Your task to perform on an android device: open a bookmark in the chrome app Image 0: 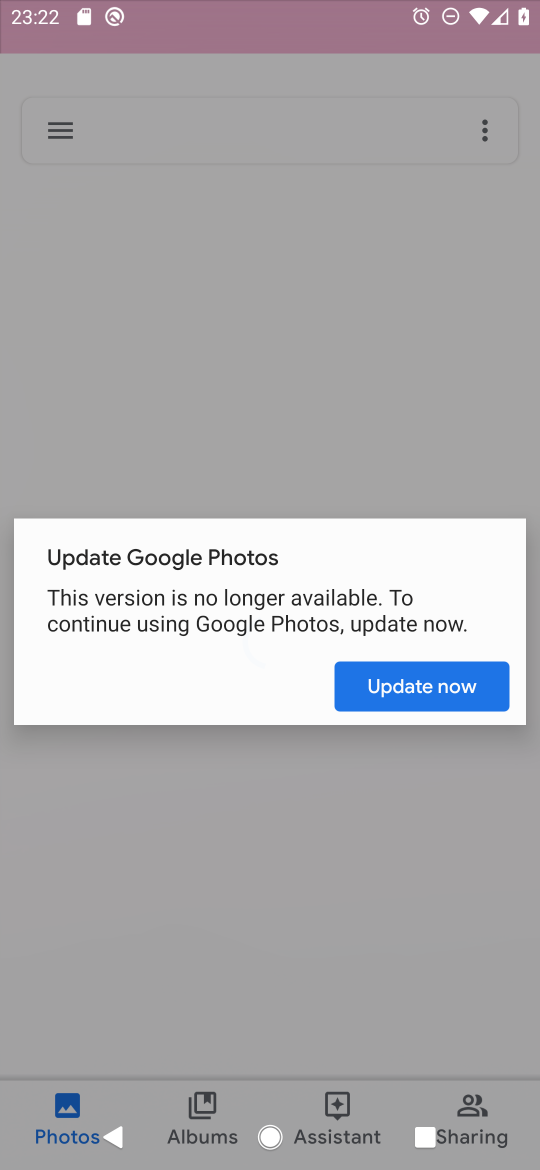
Step 0: press home button
Your task to perform on an android device: open a bookmark in the chrome app Image 1: 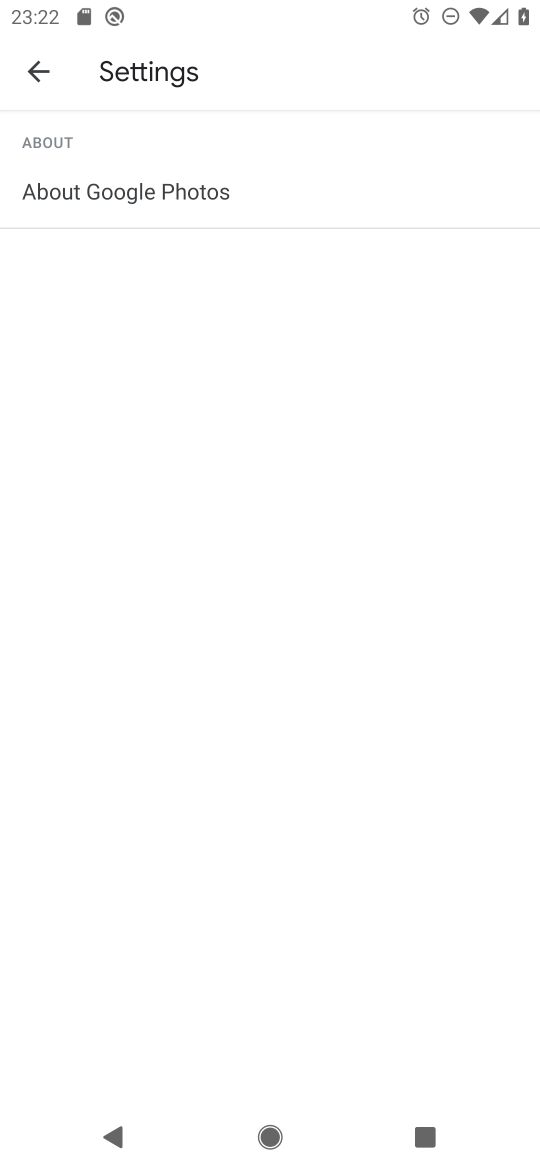
Step 1: press home button
Your task to perform on an android device: open a bookmark in the chrome app Image 2: 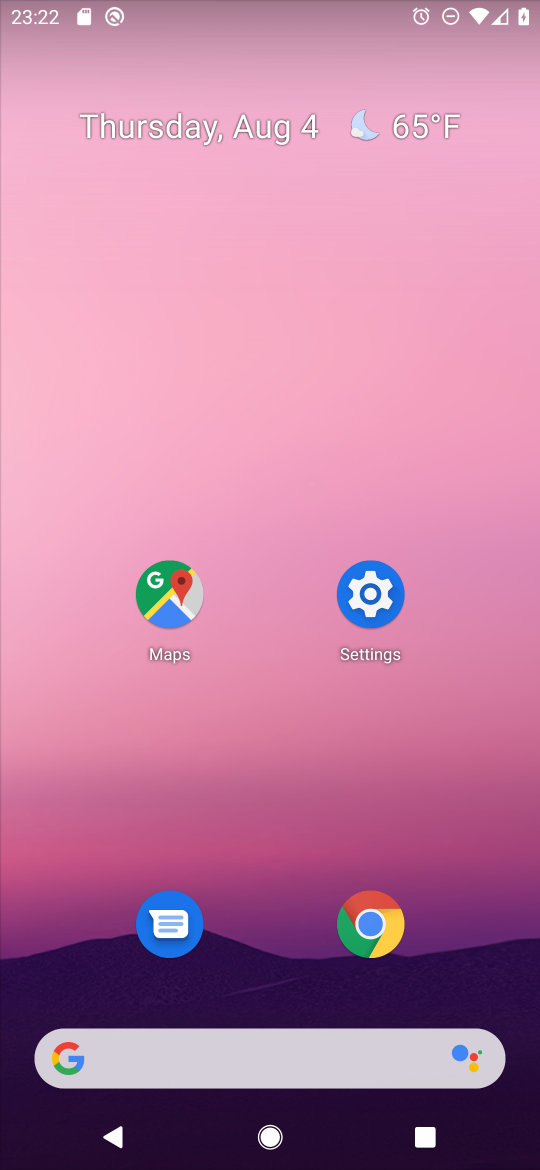
Step 2: click (372, 942)
Your task to perform on an android device: open a bookmark in the chrome app Image 3: 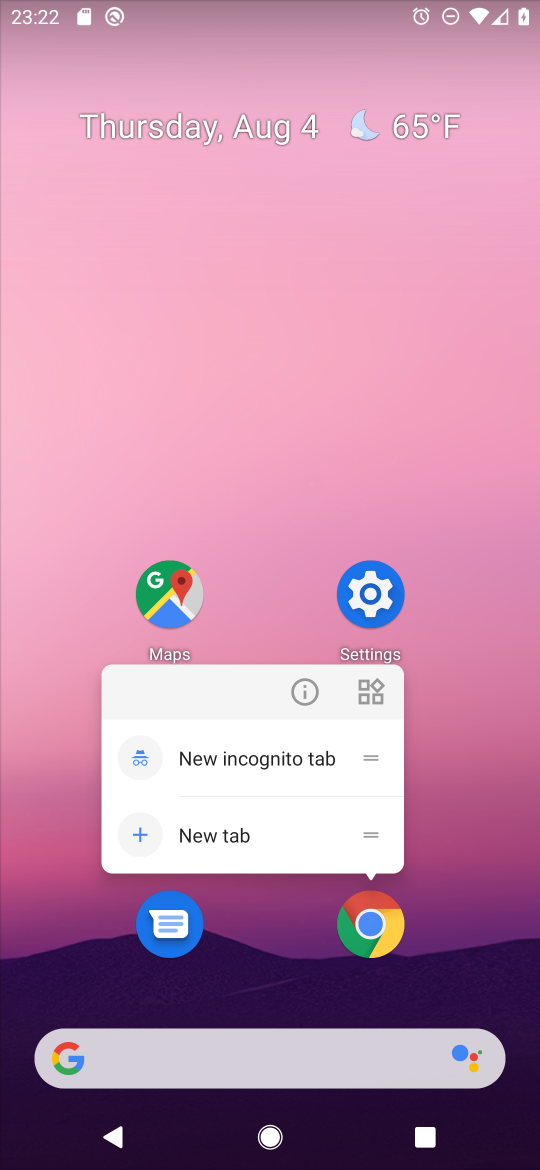
Step 3: click (370, 935)
Your task to perform on an android device: open a bookmark in the chrome app Image 4: 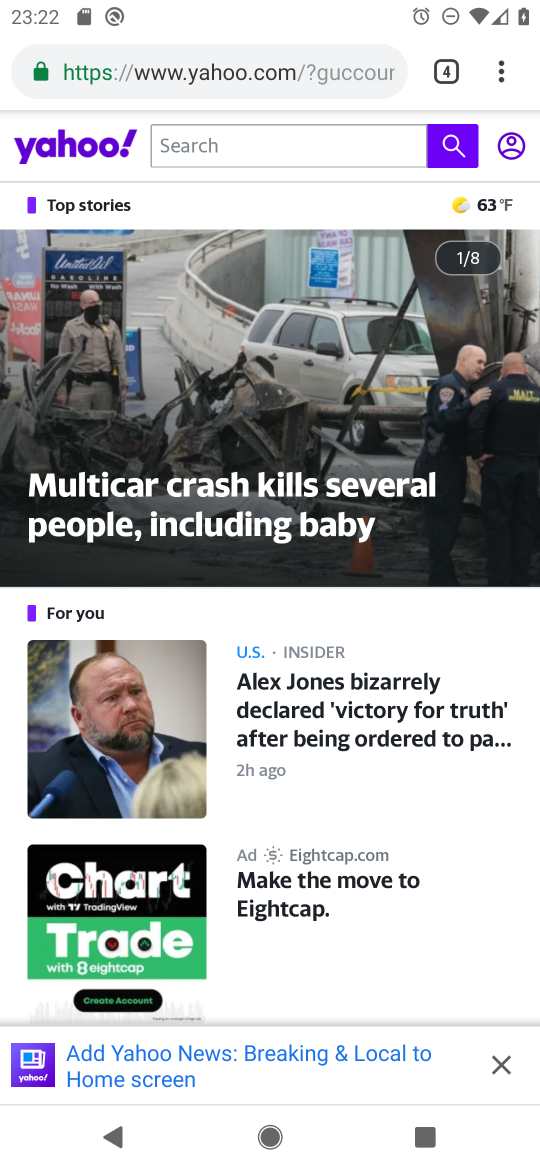
Step 4: task complete